Your task to perform on an android device: Go to Yahoo.com Image 0: 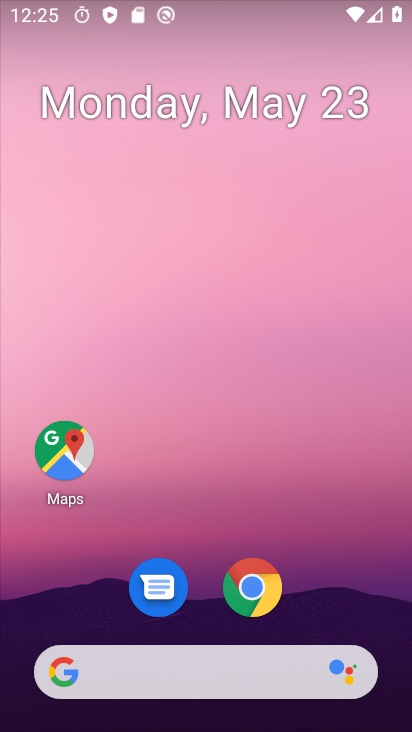
Step 0: click (259, 607)
Your task to perform on an android device: Go to Yahoo.com Image 1: 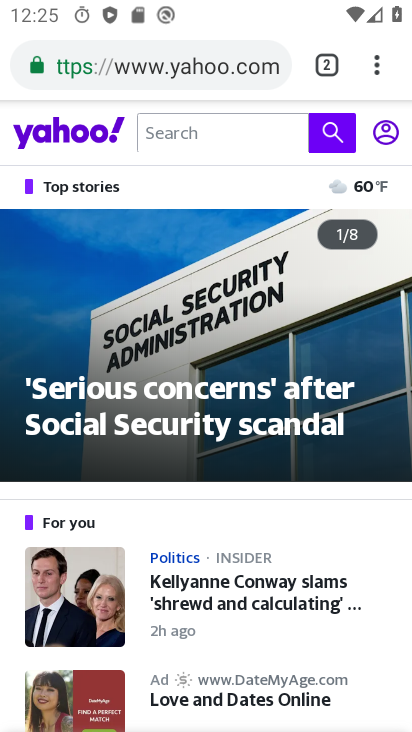
Step 1: task complete